Your task to perform on an android device: Open my contact list Image 0: 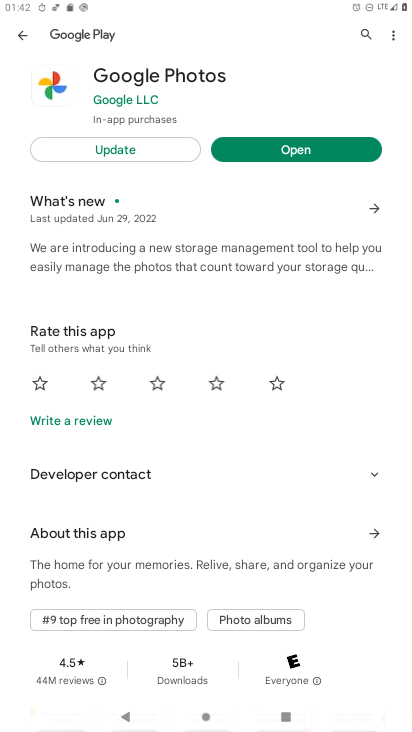
Step 0: press home button
Your task to perform on an android device: Open my contact list Image 1: 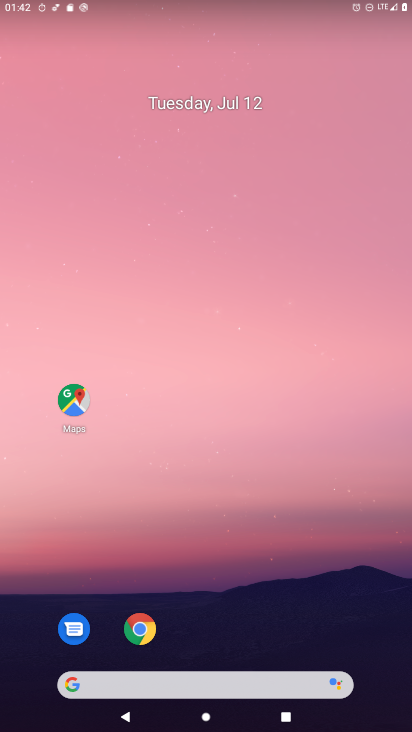
Step 1: drag from (28, 719) to (145, 170)
Your task to perform on an android device: Open my contact list Image 2: 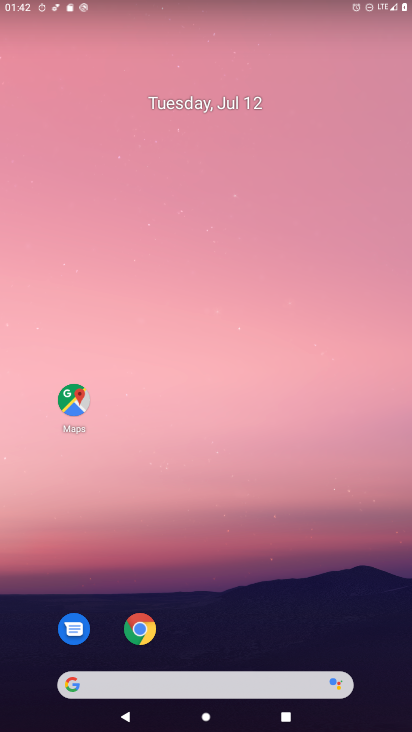
Step 2: drag from (135, 412) to (274, 0)
Your task to perform on an android device: Open my contact list Image 3: 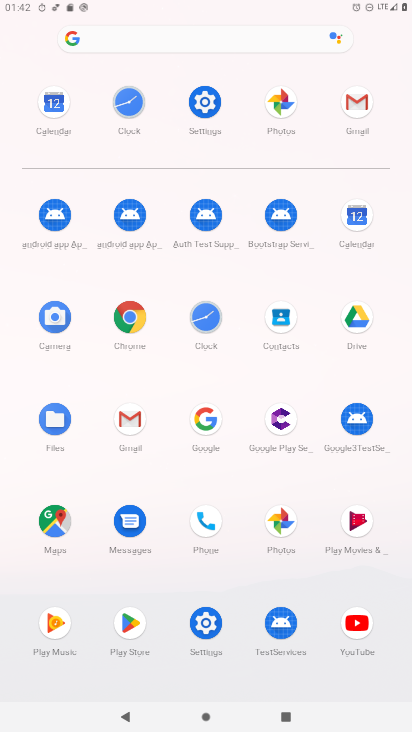
Step 3: click (287, 315)
Your task to perform on an android device: Open my contact list Image 4: 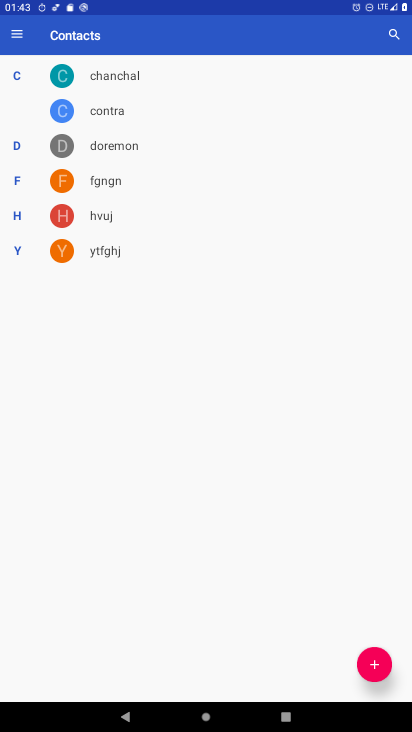
Step 4: task complete